Your task to perform on an android device: Open privacy settings Image 0: 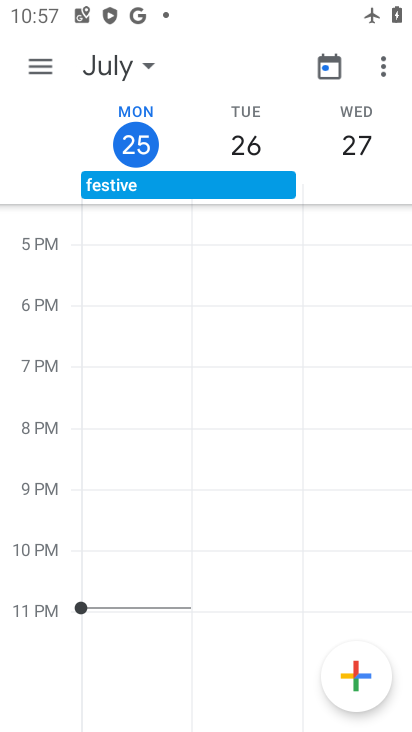
Step 0: press home button
Your task to perform on an android device: Open privacy settings Image 1: 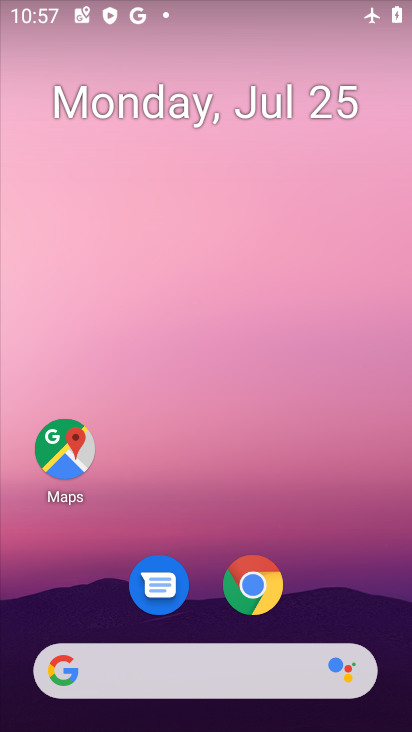
Step 1: press home button
Your task to perform on an android device: Open privacy settings Image 2: 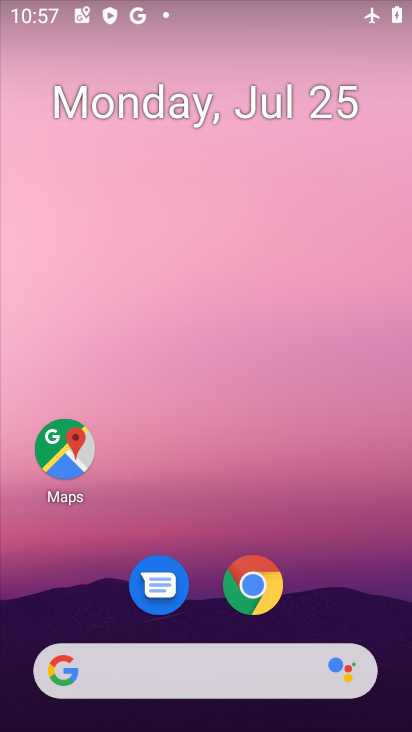
Step 2: drag from (267, 477) to (264, 16)
Your task to perform on an android device: Open privacy settings Image 3: 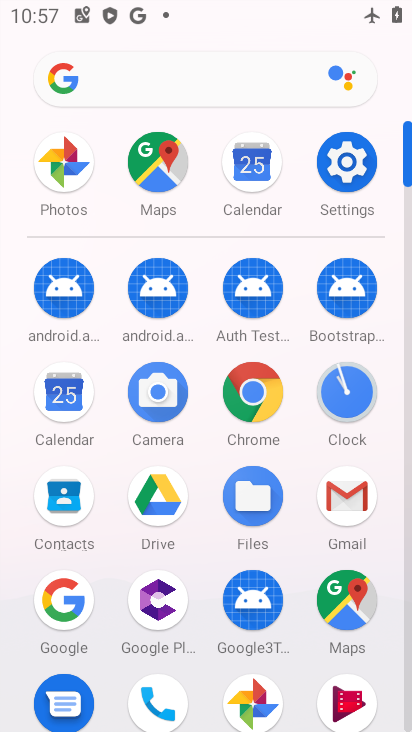
Step 3: click (339, 163)
Your task to perform on an android device: Open privacy settings Image 4: 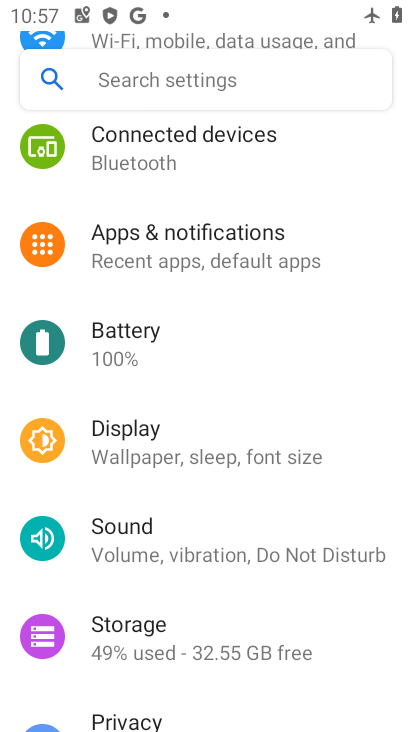
Step 4: drag from (238, 423) to (250, 148)
Your task to perform on an android device: Open privacy settings Image 5: 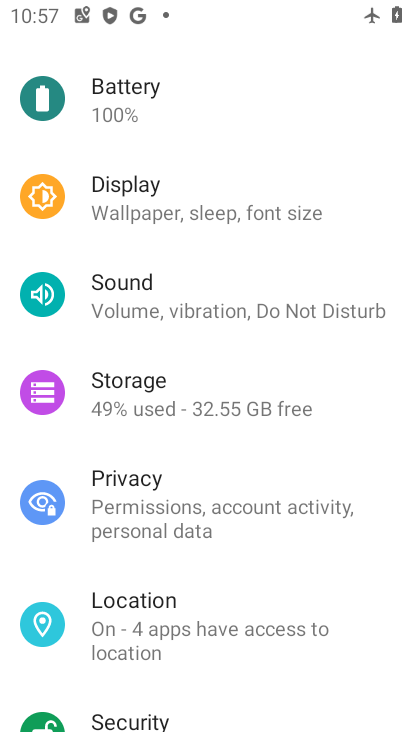
Step 5: click (214, 491)
Your task to perform on an android device: Open privacy settings Image 6: 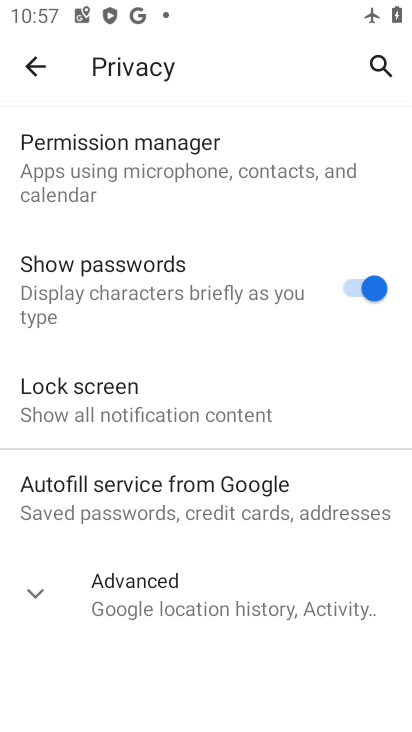
Step 6: click (34, 587)
Your task to perform on an android device: Open privacy settings Image 7: 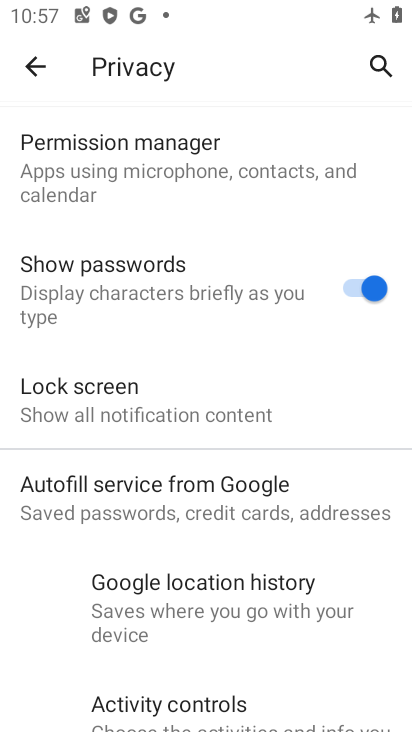
Step 7: task complete